Your task to perform on an android device: turn on improve location accuracy Image 0: 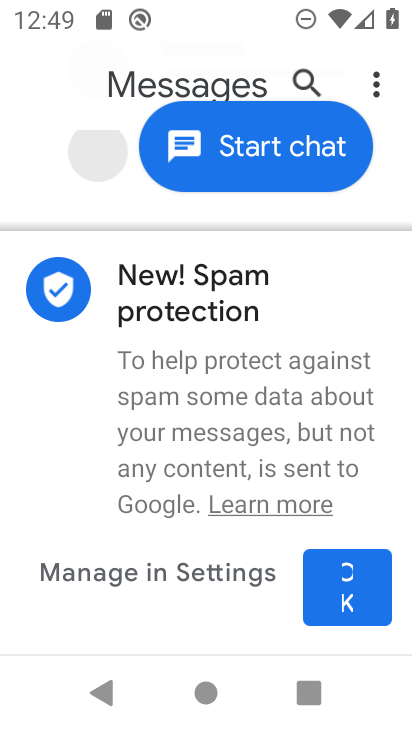
Step 0: press home button
Your task to perform on an android device: turn on improve location accuracy Image 1: 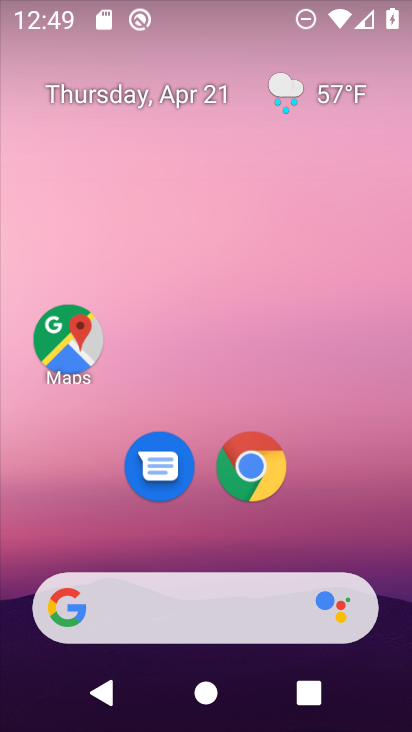
Step 1: drag from (374, 520) to (384, 0)
Your task to perform on an android device: turn on improve location accuracy Image 2: 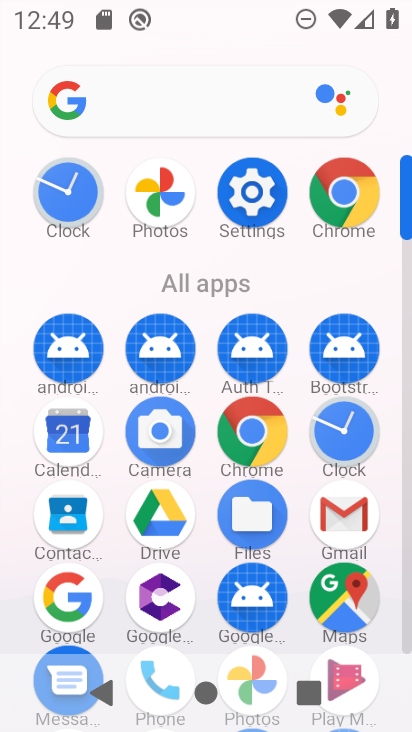
Step 2: click (254, 165)
Your task to perform on an android device: turn on improve location accuracy Image 3: 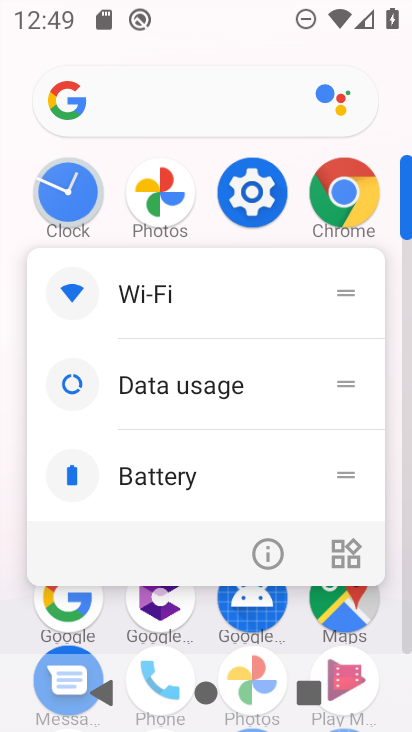
Step 3: click (267, 199)
Your task to perform on an android device: turn on improve location accuracy Image 4: 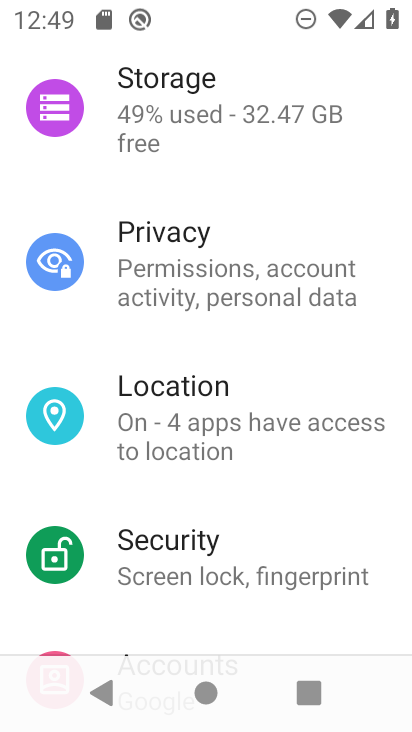
Step 4: click (215, 430)
Your task to perform on an android device: turn on improve location accuracy Image 5: 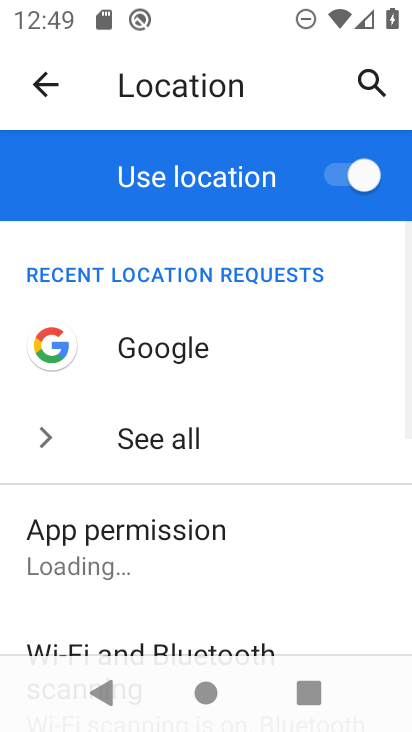
Step 5: drag from (281, 440) to (334, 308)
Your task to perform on an android device: turn on improve location accuracy Image 6: 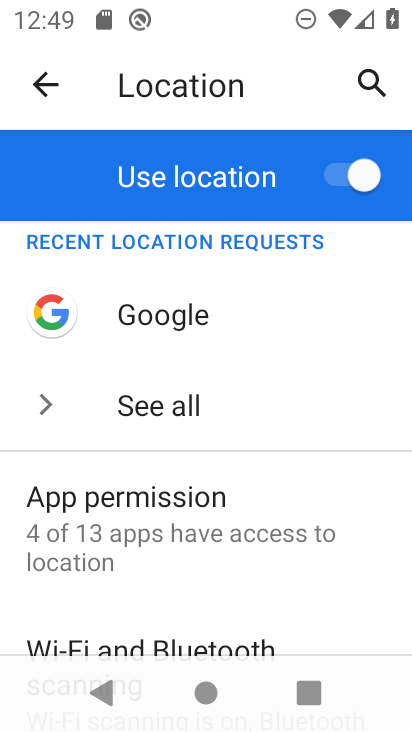
Step 6: drag from (246, 534) to (281, 336)
Your task to perform on an android device: turn on improve location accuracy Image 7: 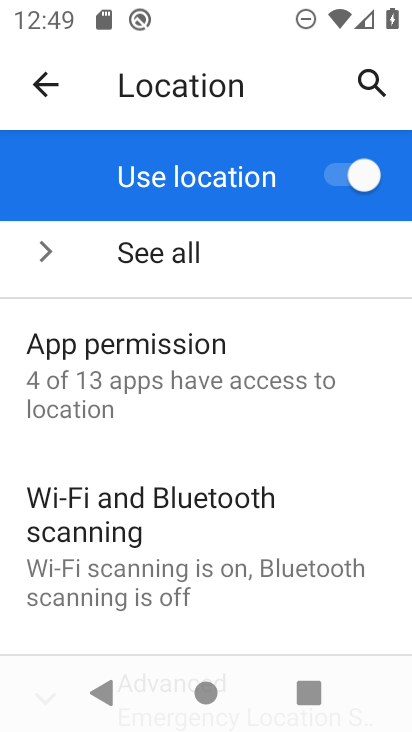
Step 7: drag from (193, 609) to (256, 341)
Your task to perform on an android device: turn on improve location accuracy Image 8: 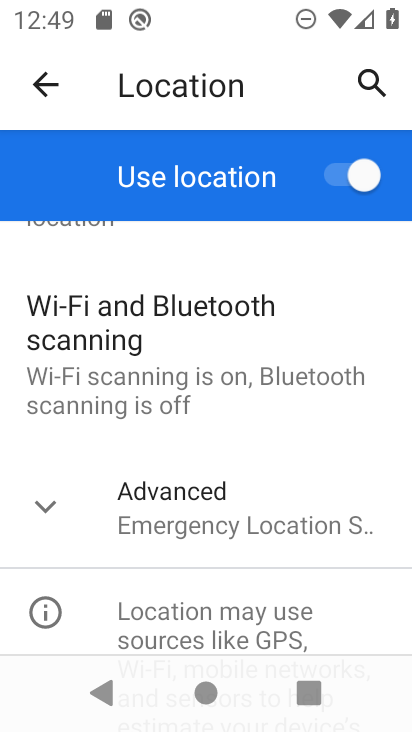
Step 8: click (213, 535)
Your task to perform on an android device: turn on improve location accuracy Image 9: 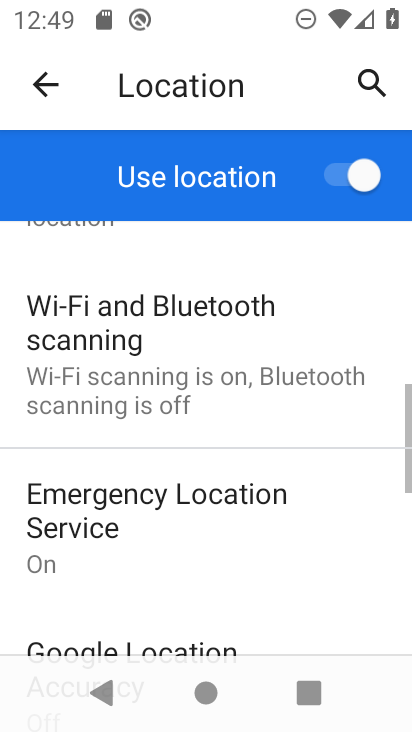
Step 9: drag from (226, 598) to (294, 327)
Your task to perform on an android device: turn on improve location accuracy Image 10: 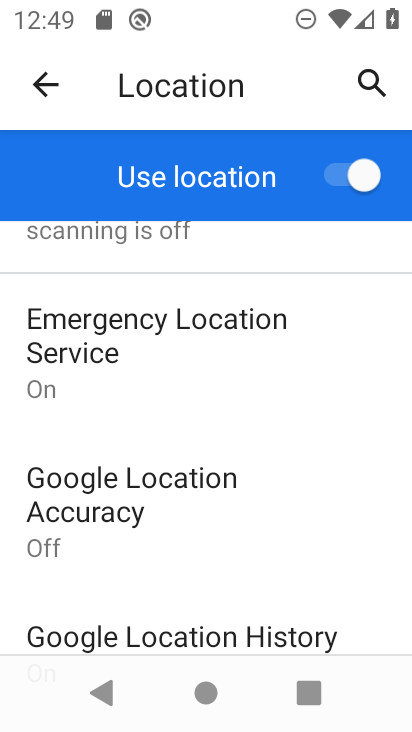
Step 10: click (75, 516)
Your task to perform on an android device: turn on improve location accuracy Image 11: 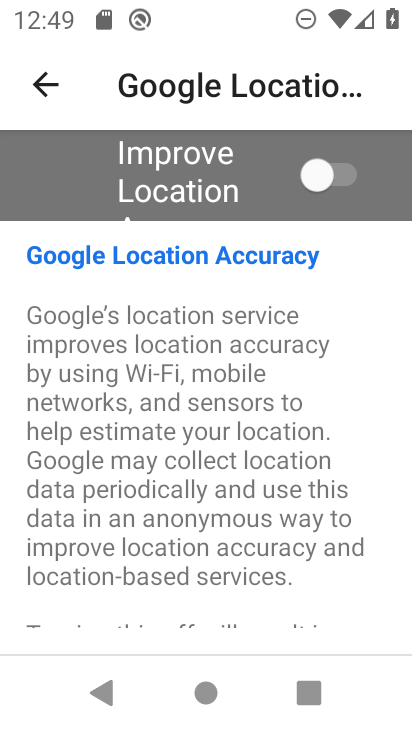
Step 11: click (334, 181)
Your task to perform on an android device: turn on improve location accuracy Image 12: 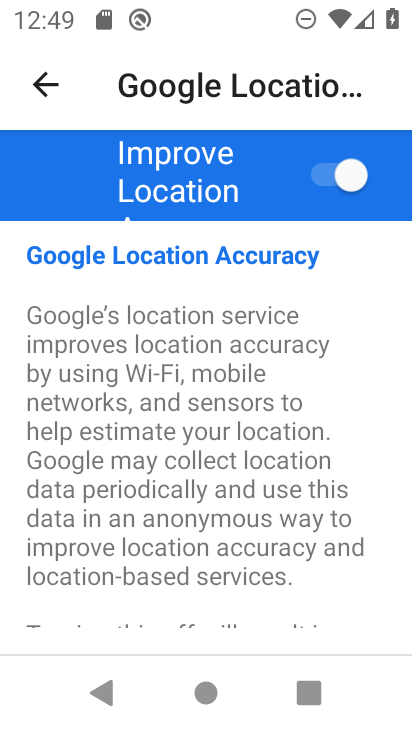
Step 12: task complete